Your task to perform on an android device: Empty the shopping cart on bestbuy.com. Add "logitech g903" to the cart on bestbuy.com Image 0: 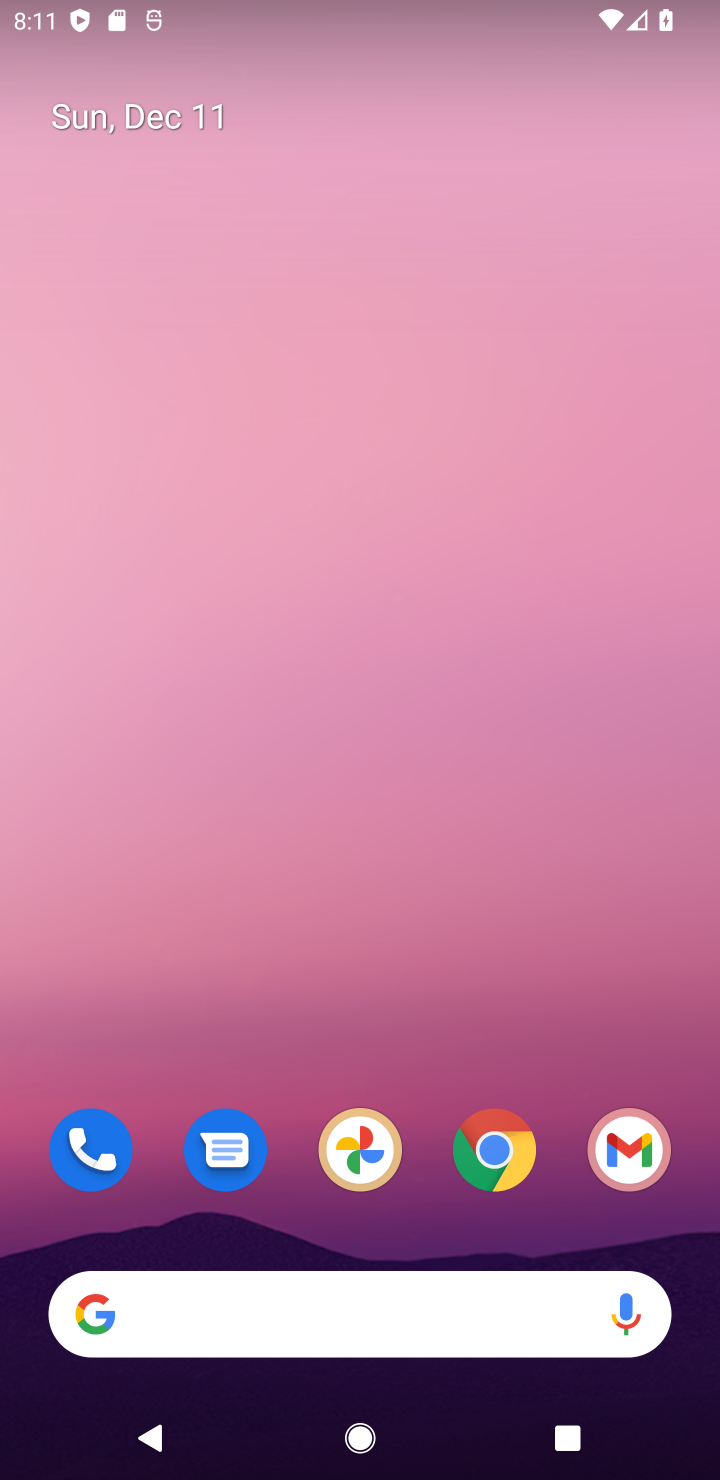
Step 0: click (495, 1153)
Your task to perform on an android device: Empty the shopping cart on bestbuy.com. Add "logitech g903" to the cart on bestbuy.com Image 1: 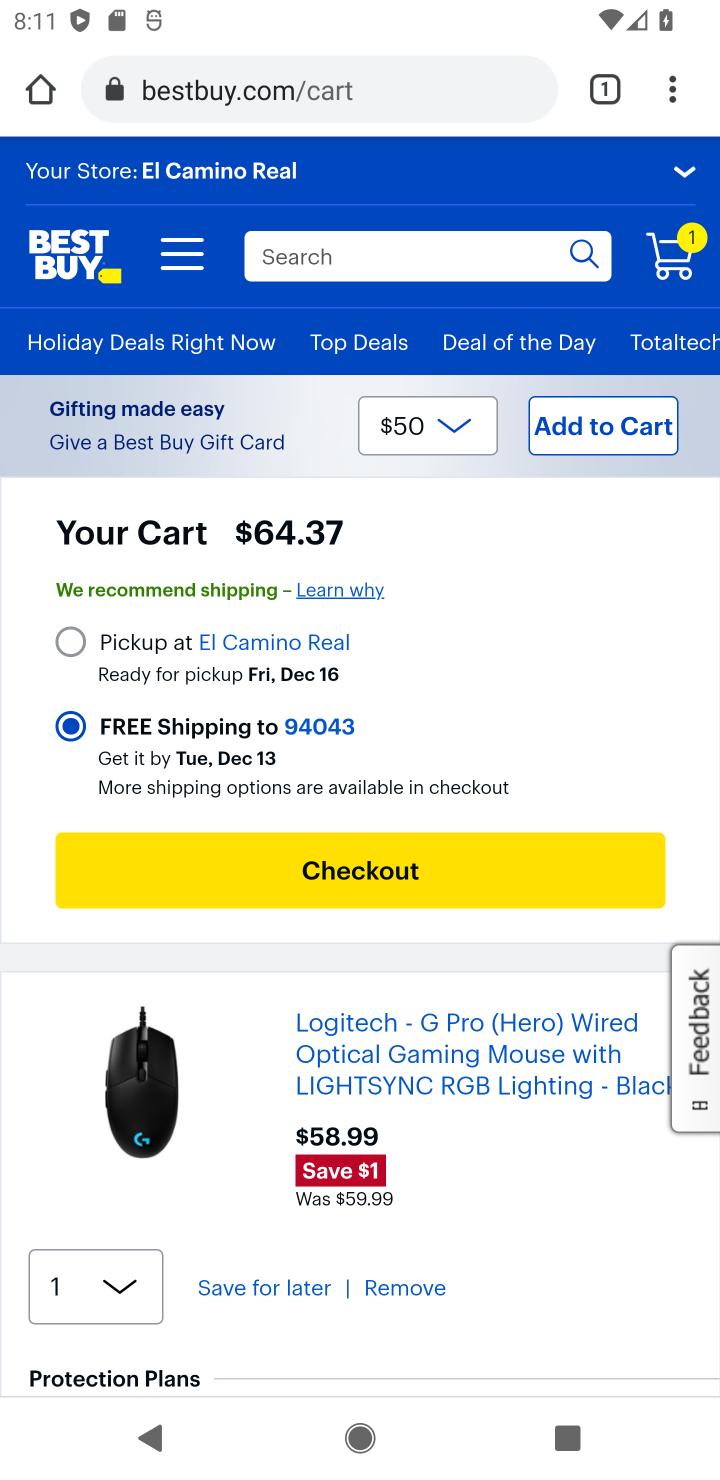
Step 1: click (394, 94)
Your task to perform on an android device: Empty the shopping cart on bestbuy.com. Add "logitech g903" to the cart on bestbuy.com Image 2: 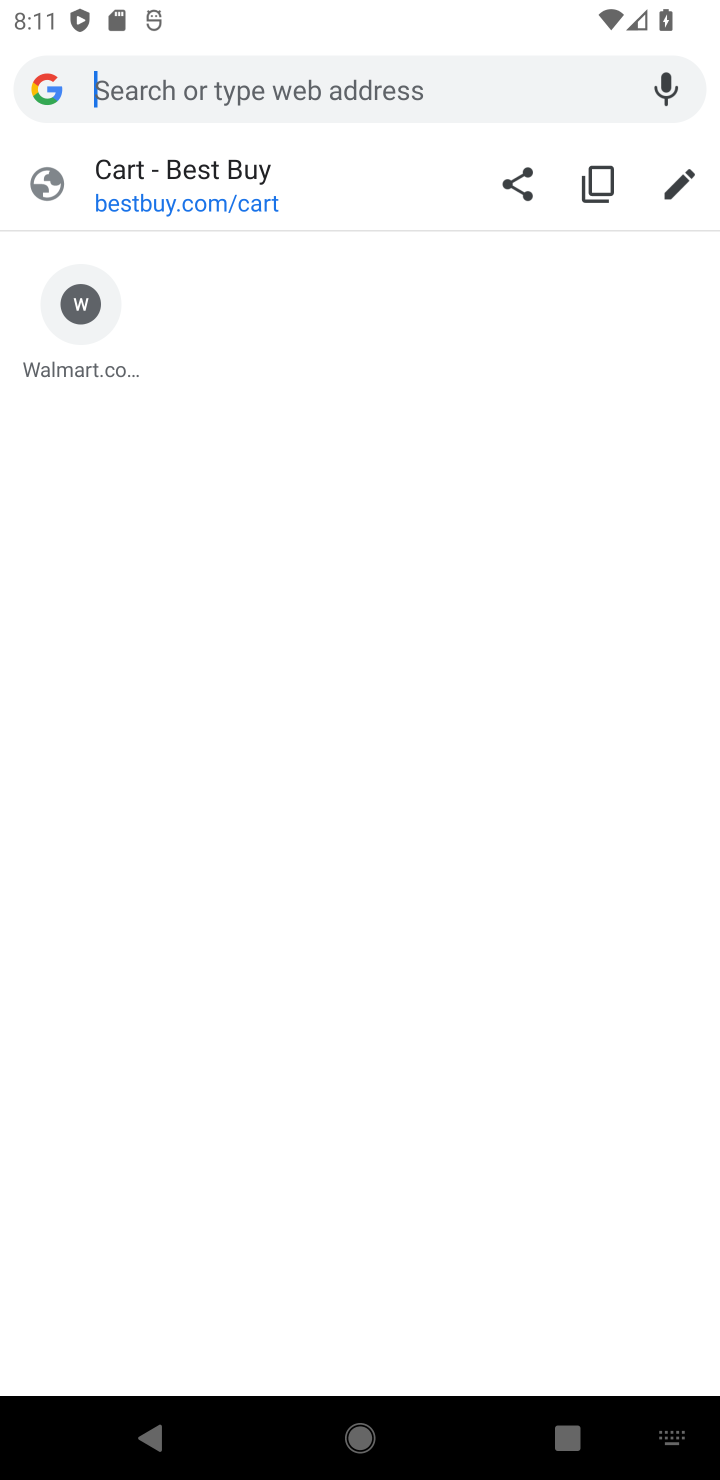
Step 2: type "bestbuy.com"
Your task to perform on an android device: Empty the shopping cart on bestbuy.com. Add "logitech g903" to the cart on bestbuy.com Image 3: 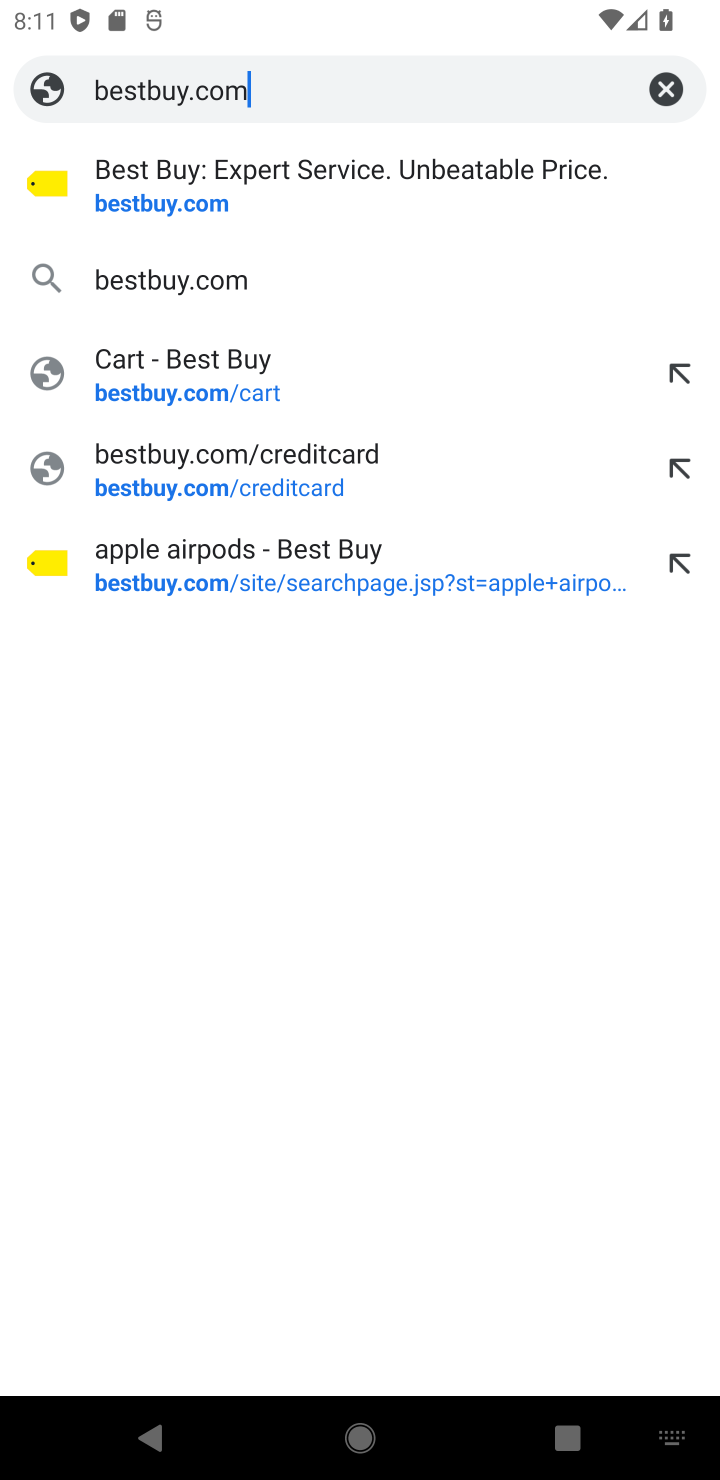
Step 3: click (210, 275)
Your task to perform on an android device: Empty the shopping cart on bestbuy.com. Add "logitech g903" to the cart on bestbuy.com Image 4: 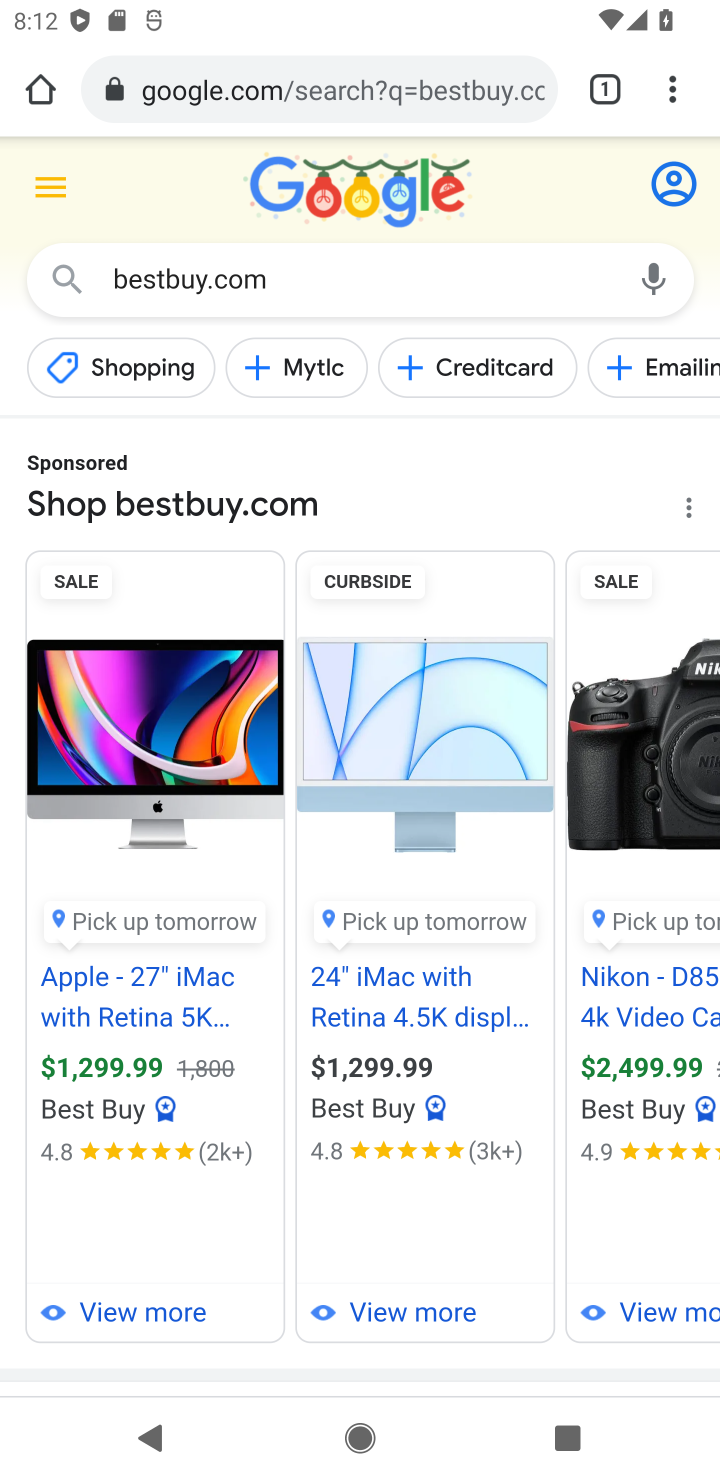
Step 4: drag from (382, 1236) to (468, 426)
Your task to perform on an android device: Empty the shopping cart on bestbuy.com. Add "logitech g903" to the cart on bestbuy.com Image 5: 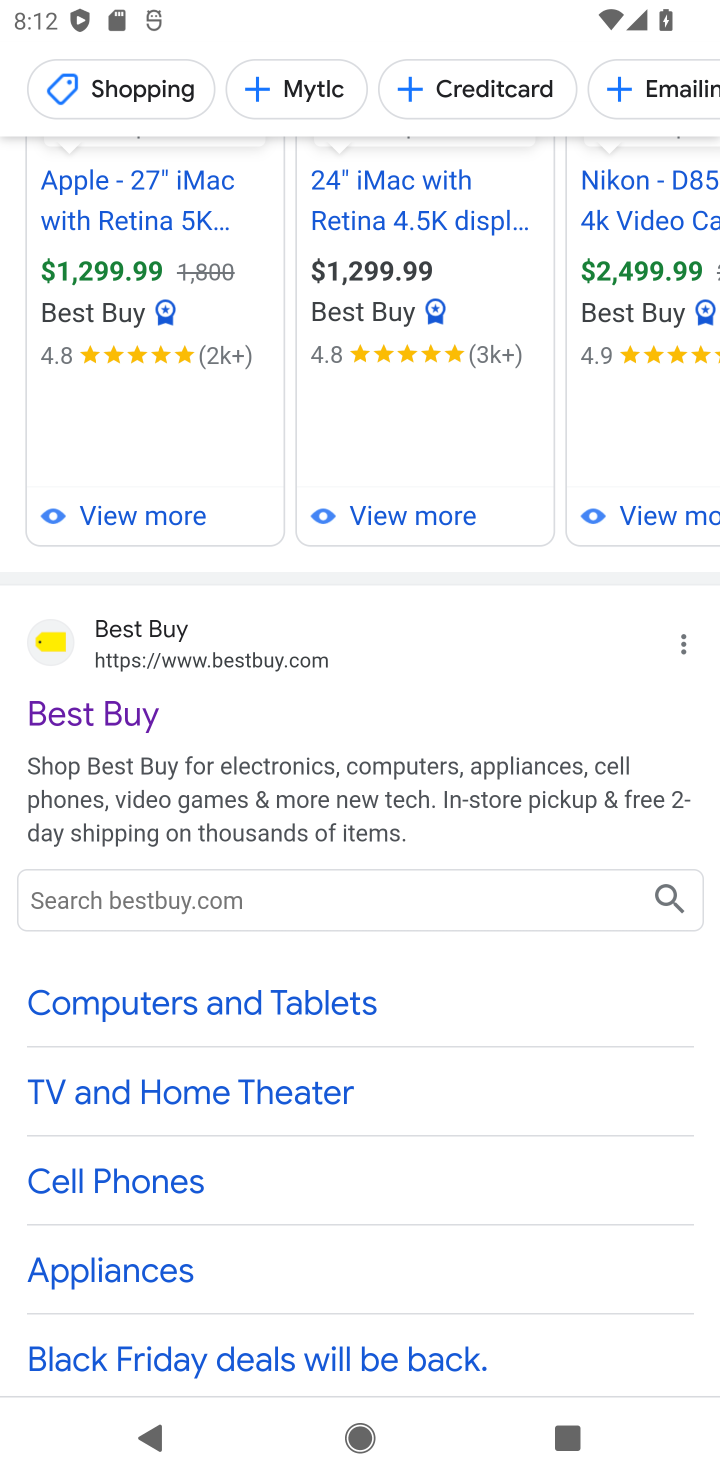
Step 5: click (128, 707)
Your task to perform on an android device: Empty the shopping cart on bestbuy.com. Add "logitech g903" to the cart on bestbuy.com Image 6: 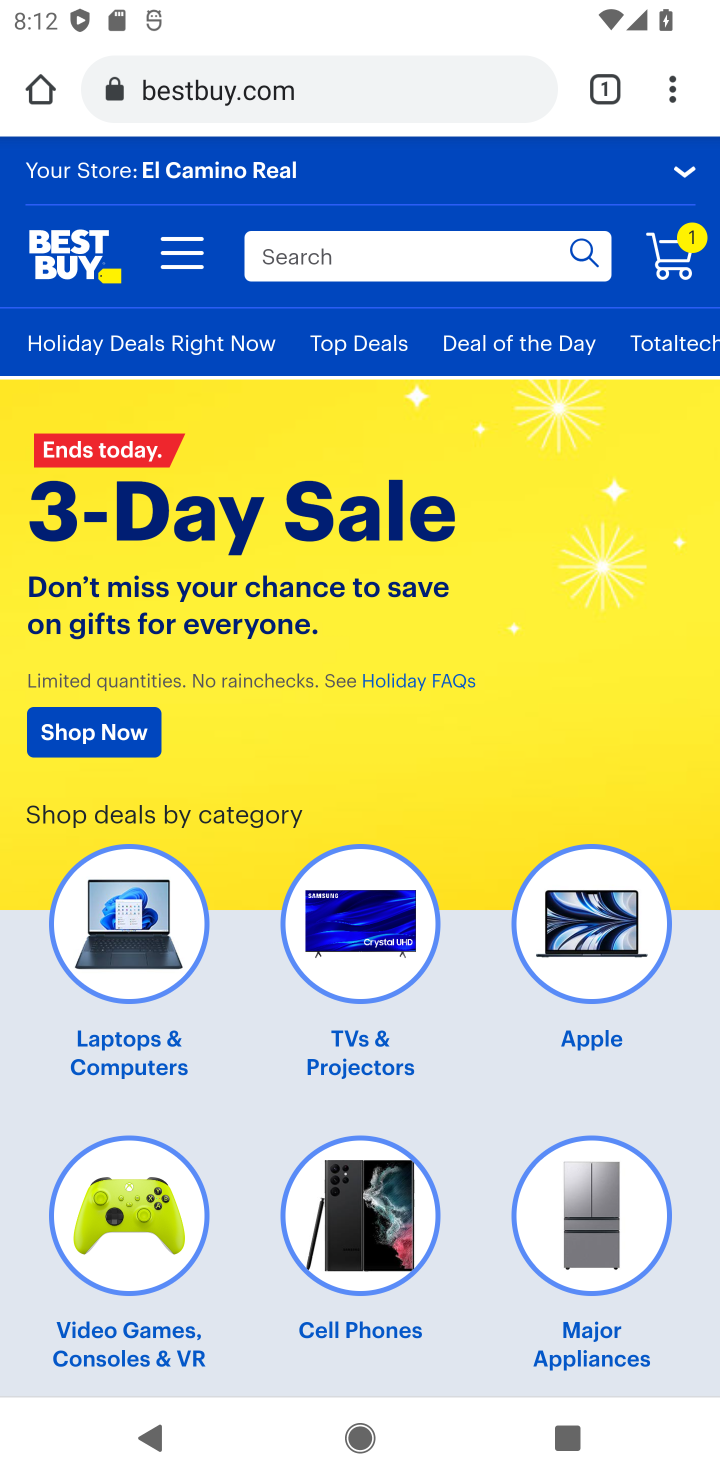
Step 6: click (675, 252)
Your task to perform on an android device: Empty the shopping cart on bestbuy.com. Add "logitech g903" to the cart on bestbuy.com Image 7: 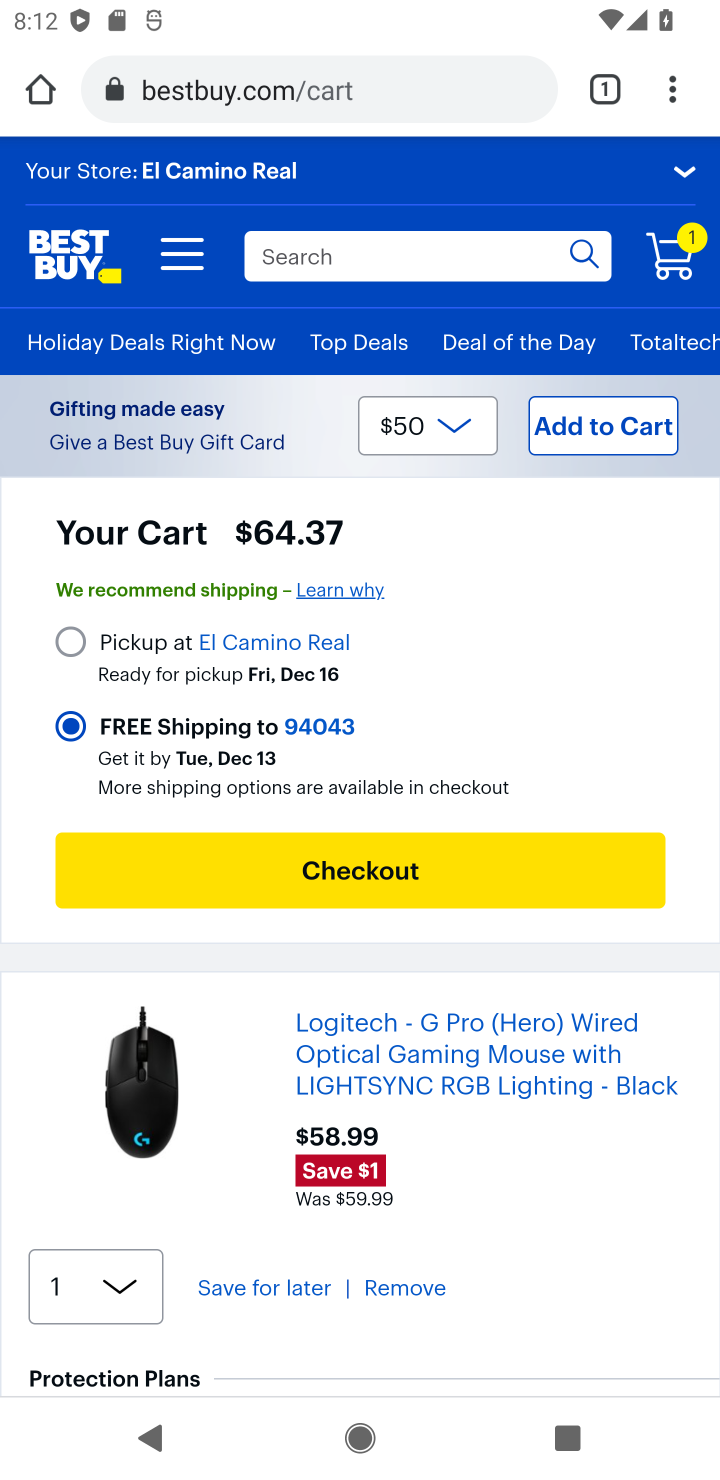
Step 7: click (402, 1293)
Your task to perform on an android device: Empty the shopping cart on bestbuy.com. Add "logitech g903" to the cart on bestbuy.com Image 8: 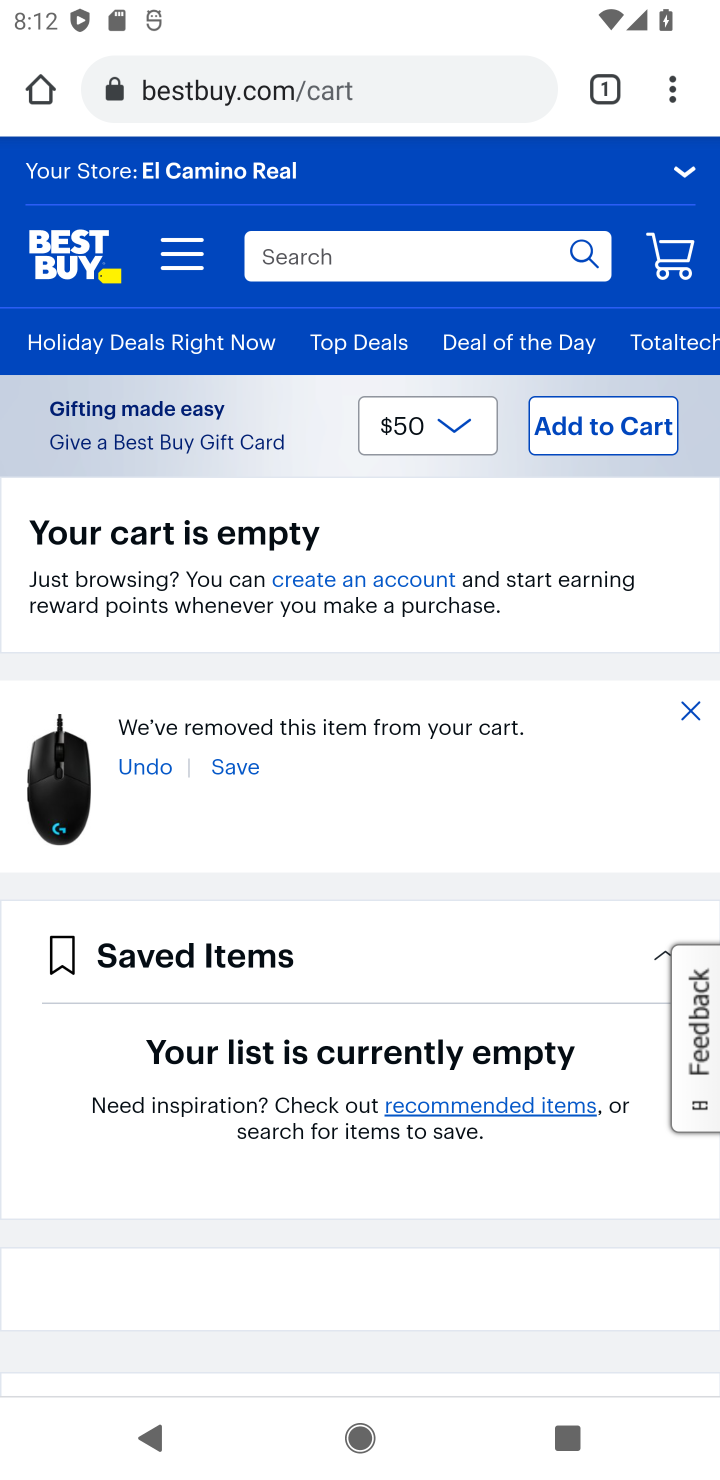
Step 8: click (464, 253)
Your task to perform on an android device: Empty the shopping cart on bestbuy.com. Add "logitech g903" to the cart on bestbuy.com Image 9: 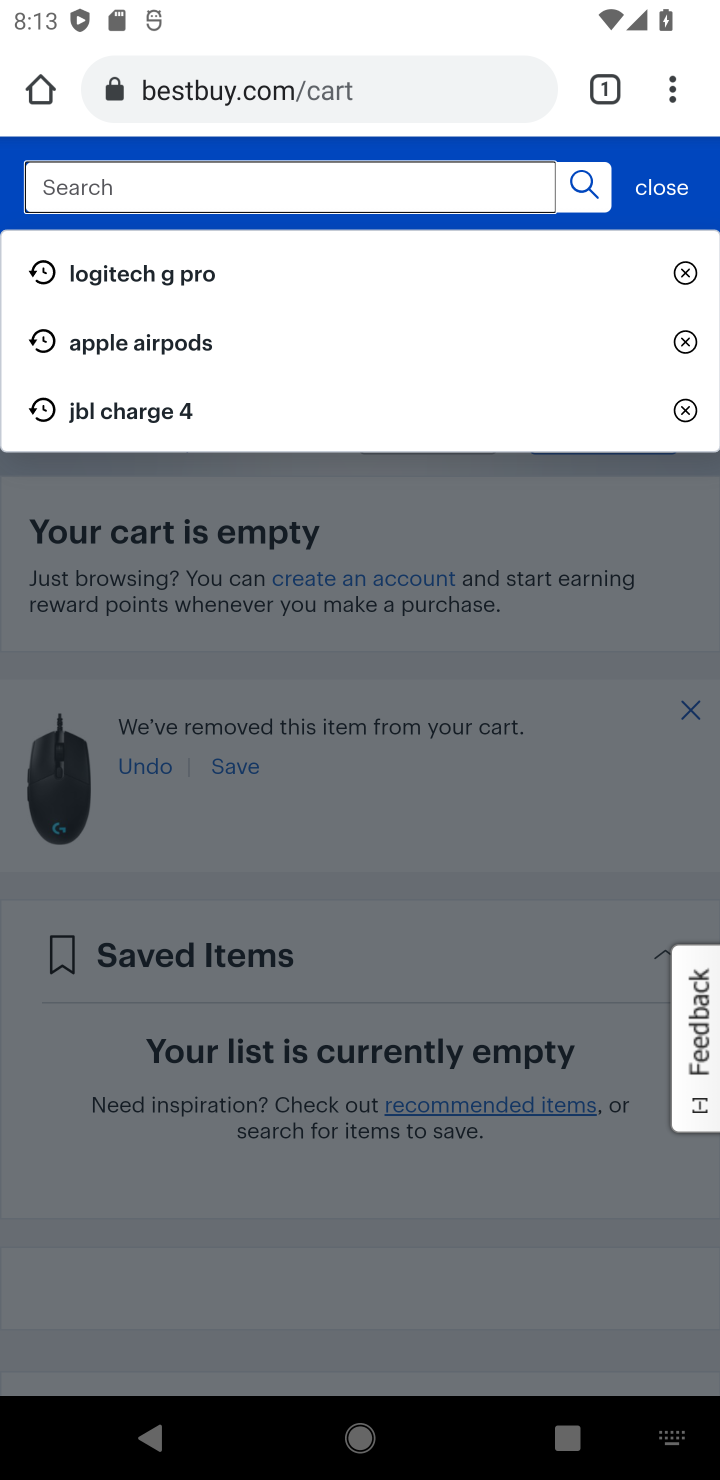
Step 9: type "logitech g903"
Your task to perform on an android device: Empty the shopping cart on bestbuy.com. Add "logitech g903" to the cart on bestbuy.com Image 10: 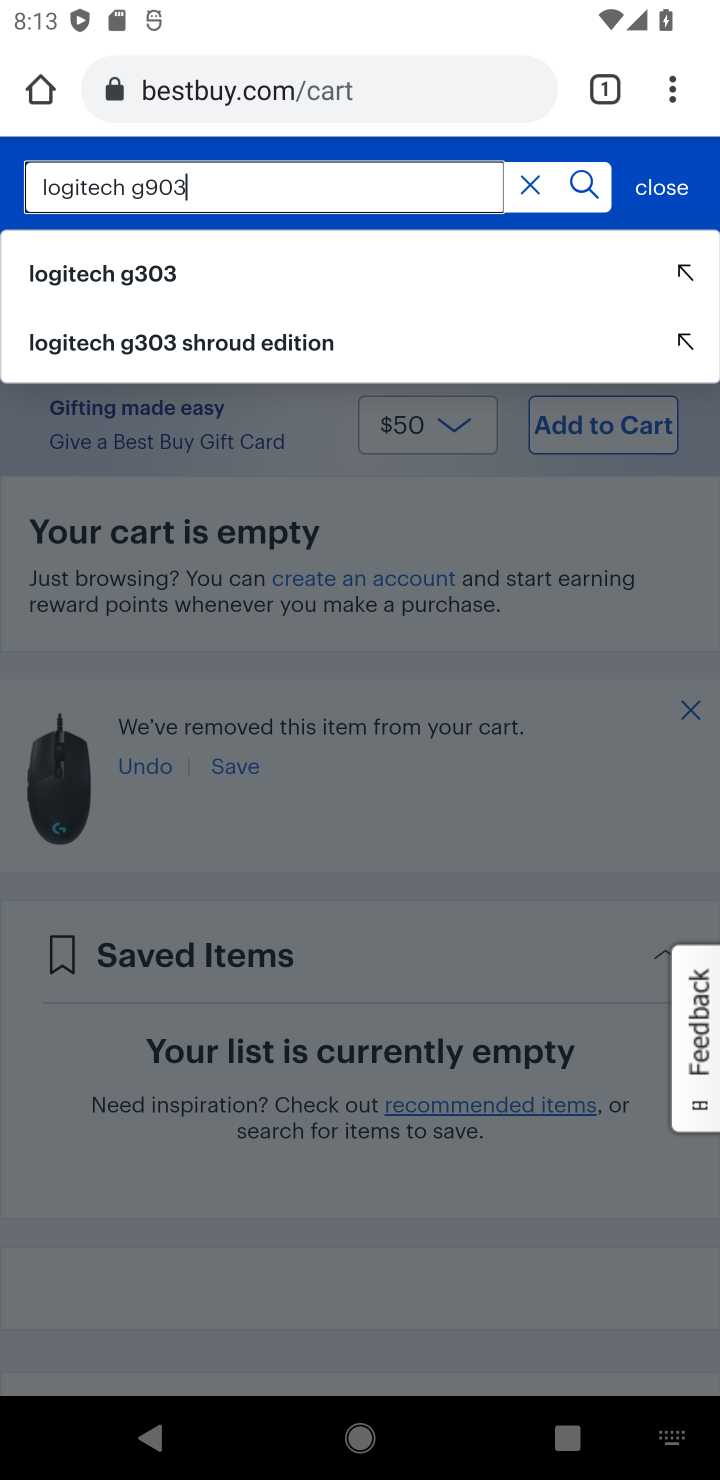
Step 10: click (117, 271)
Your task to perform on an android device: Empty the shopping cart on bestbuy.com. Add "logitech g903" to the cart on bestbuy.com Image 11: 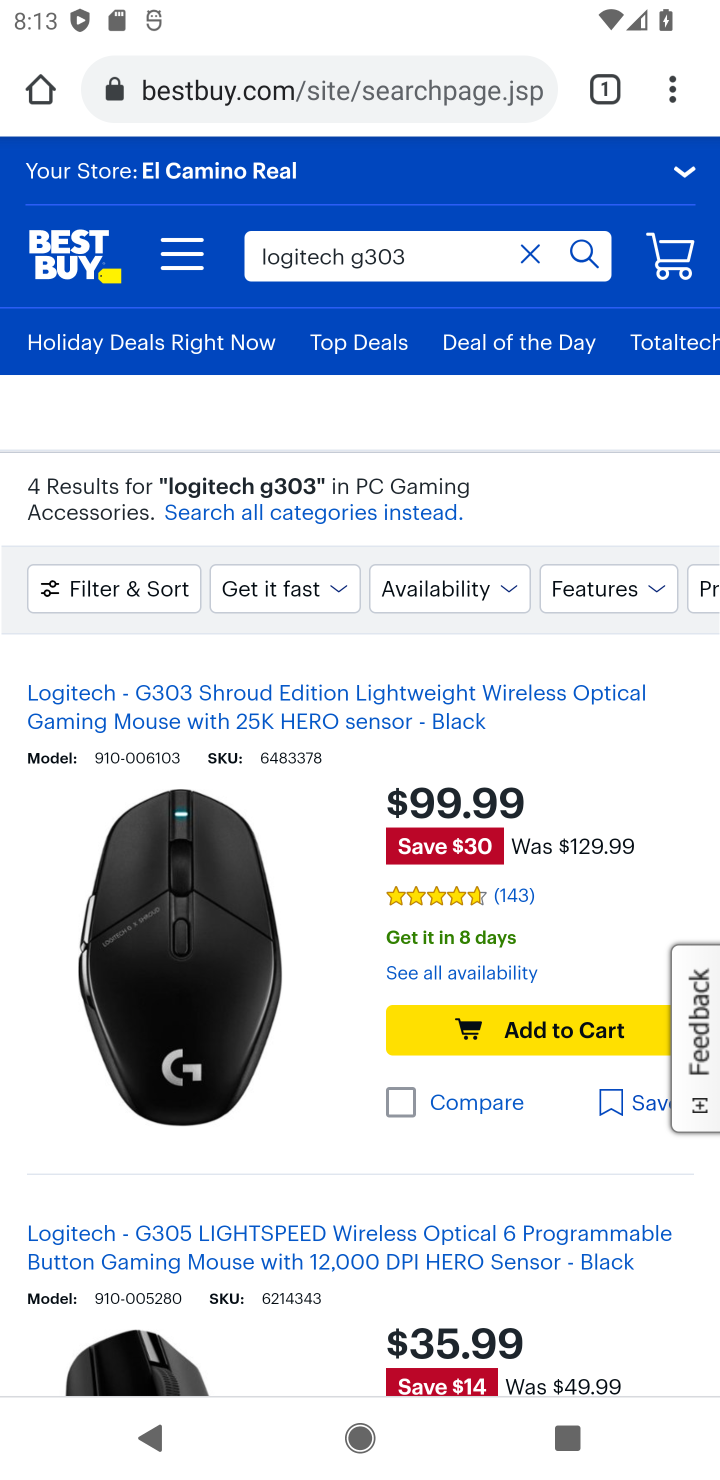
Step 11: click (559, 1030)
Your task to perform on an android device: Empty the shopping cart on bestbuy.com. Add "logitech g903" to the cart on bestbuy.com Image 12: 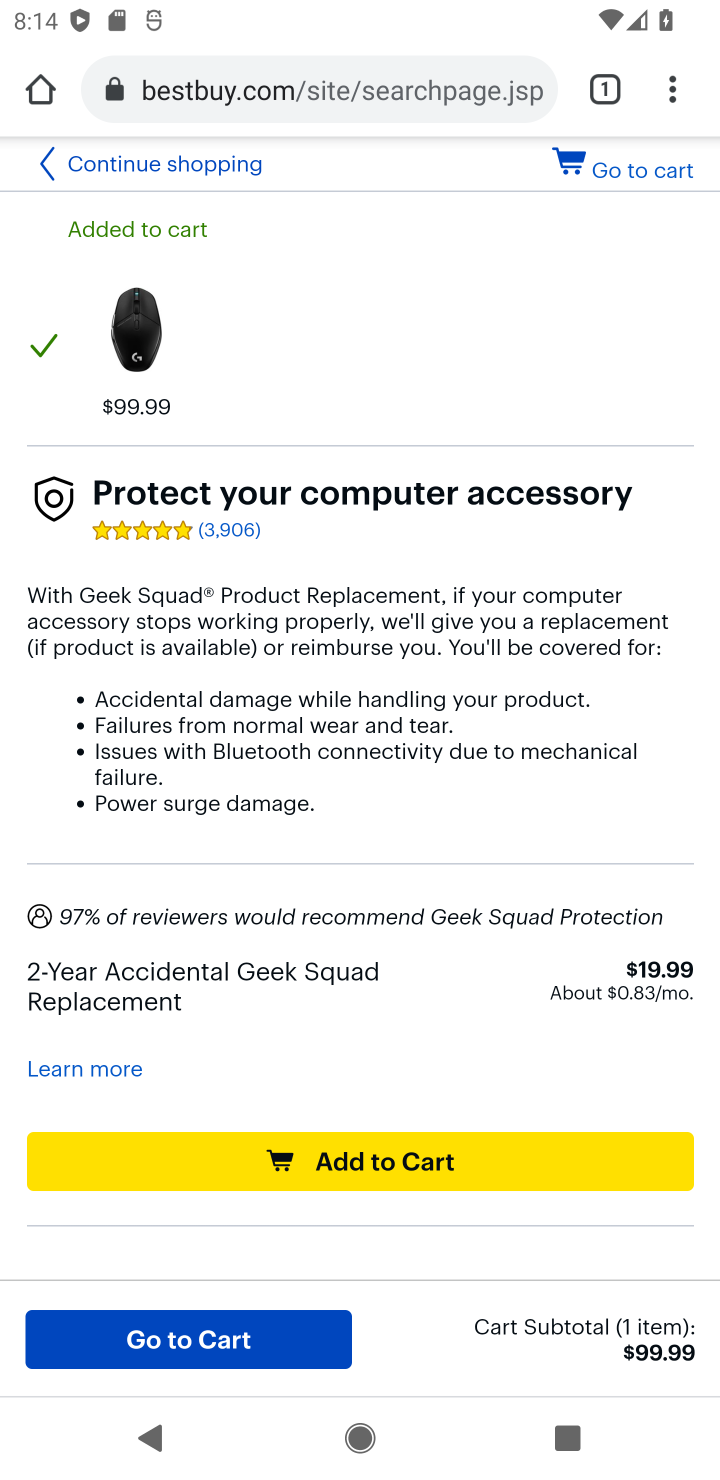
Step 12: click (205, 1341)
Your task to perform on an android device: Empty the shopping cart on bestbuy.com. Add "logitech g903" to the cart on bestbuy.com Image 13: 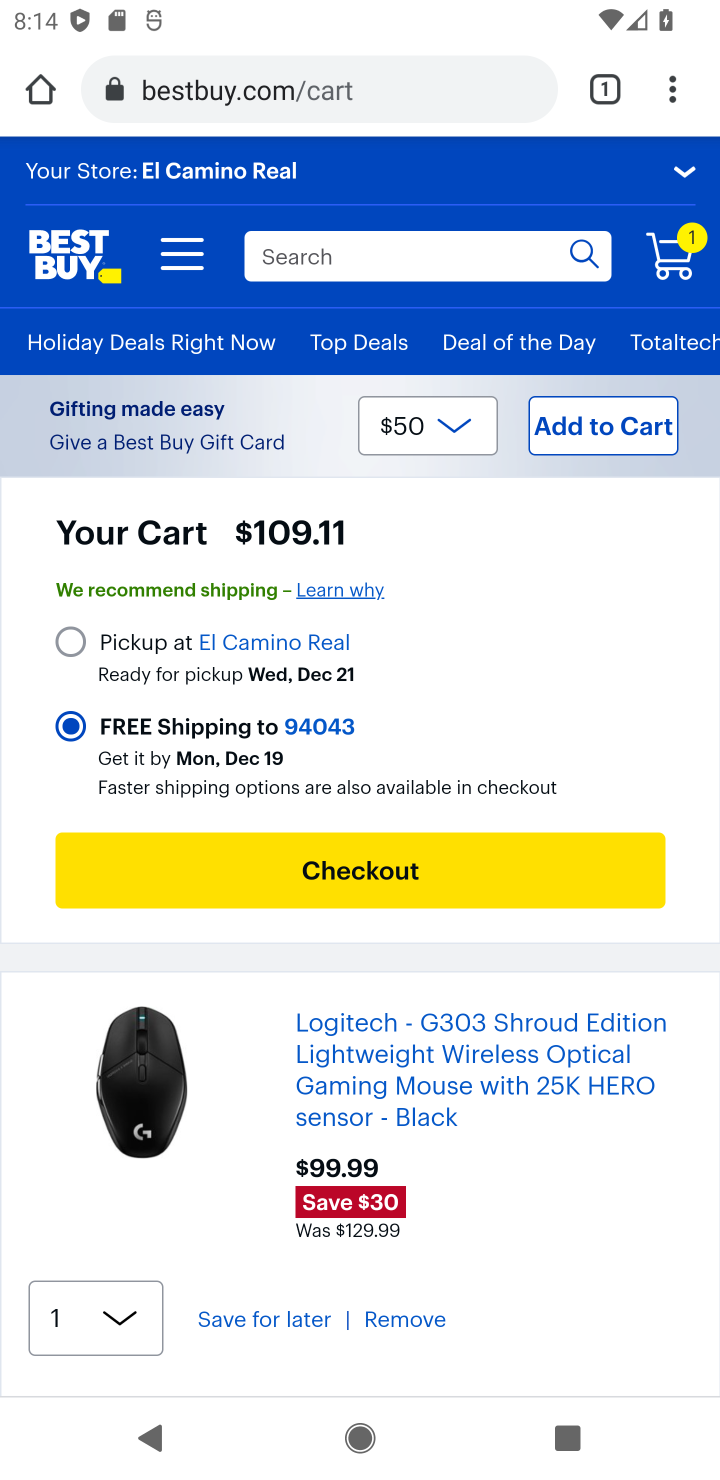
Step 13: task complete